Your task to perform on an android device: delete a single message in the gmail app Image 0: 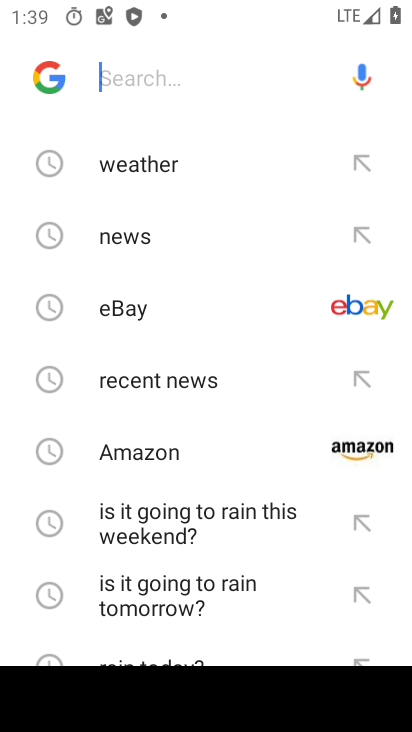
Step 0: task impossible